Your task to perform on an android device: toggle show notifications on the lock screen Image 0: 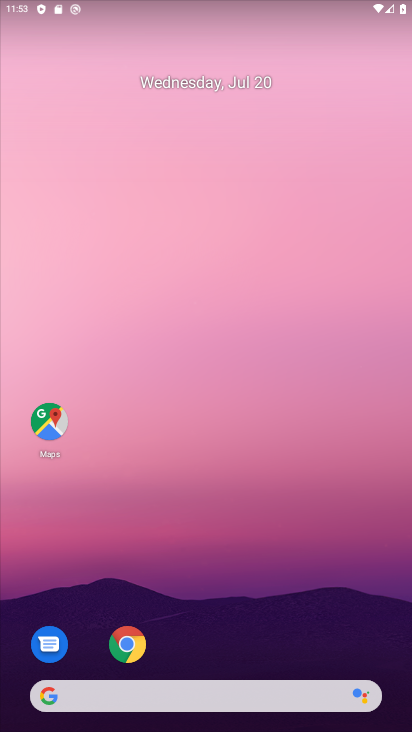
Step 0: drag from (260, 631) to (251, 315)
Your task to perform on an android device: toggle show notifications on the lock screen Image 1: 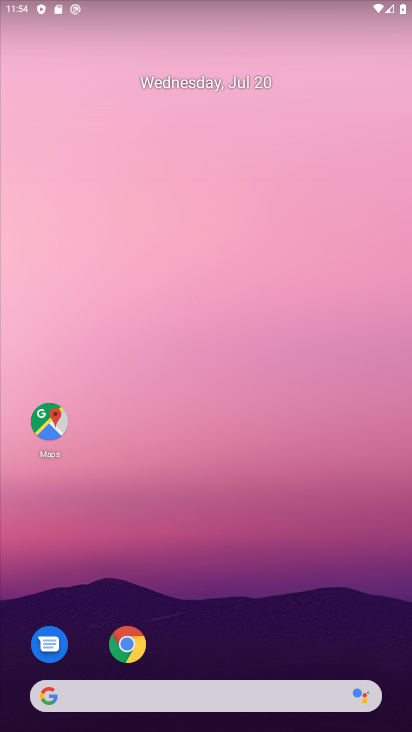
Step 1: drag from (293, 643) to (202, 199)
Your task to perform on an android device: toggle show notifications on the lock screen Image 2: 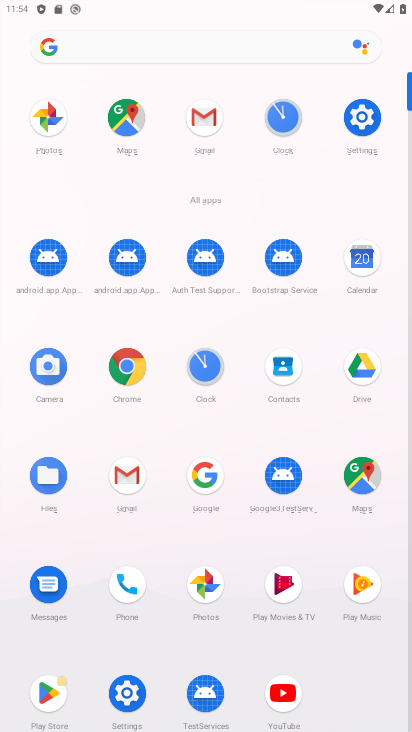
Step 2: click (362, 120)
Your task to perform on an android device: toggle show notifications on the lock screen Image 3: 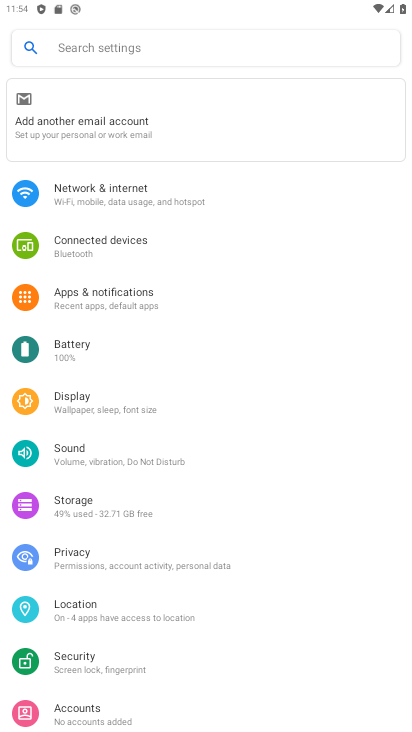
Step 3: click (101, 299)
Your task to perform on an android device: toggle show notifications on the lock screen Image 4: 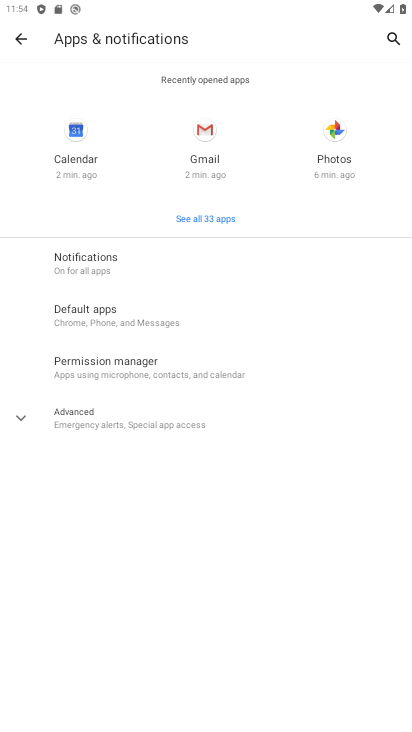
Step 4: task complete